Your task to perform on an android device: Go to privacy settings Image 0: 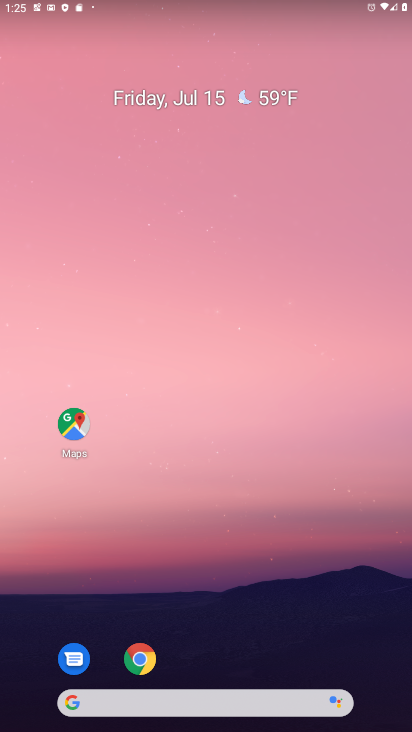
Step 0: drag from (252, 726) to (277, 14)
Your task to perform on an android device: Go to privacy settings Image 1: 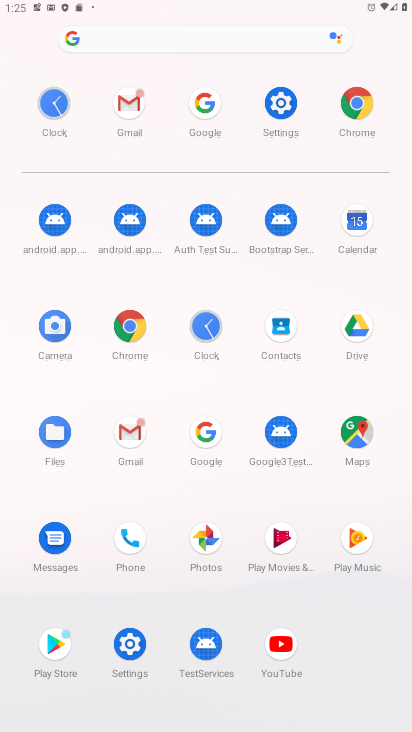
Step 1: click (278, 100)
Your task to perform on an android device: Go to privacy settings Image 2: 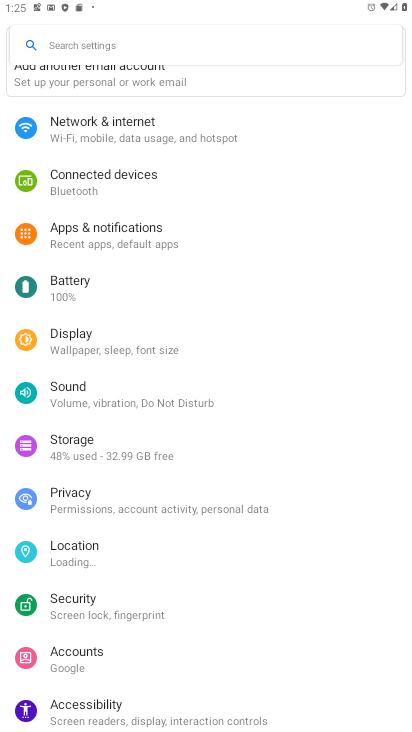
Step 2: click (69, 496)
Your task to perform on an android device: Go to privacy settings Image 3: 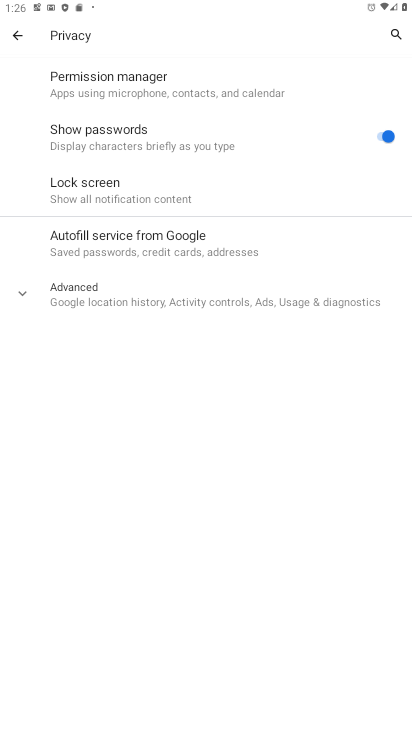
Step 3: task complete